Your task to perform on an android device: toggle location history Image 0: 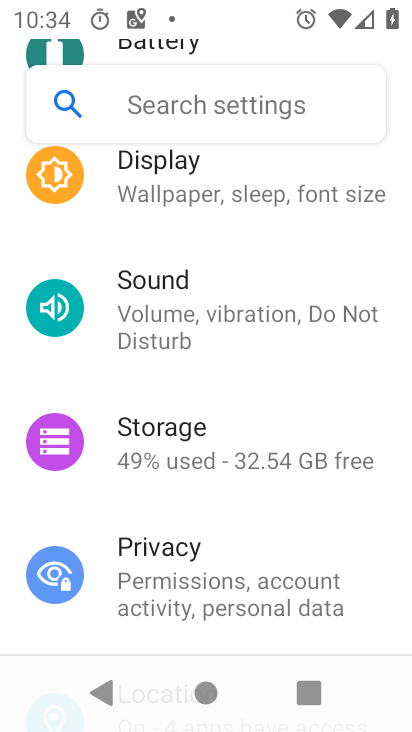
Step 0: press home button
Your task to perform on an android device: toggle location history Image 1: 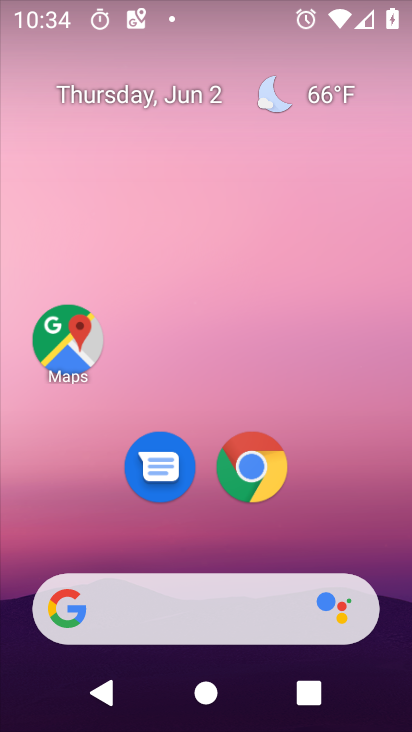
Step 1: drag from (27, 621) to (281, 136)
Your task to perform on an android device: toggle location history Image 2: 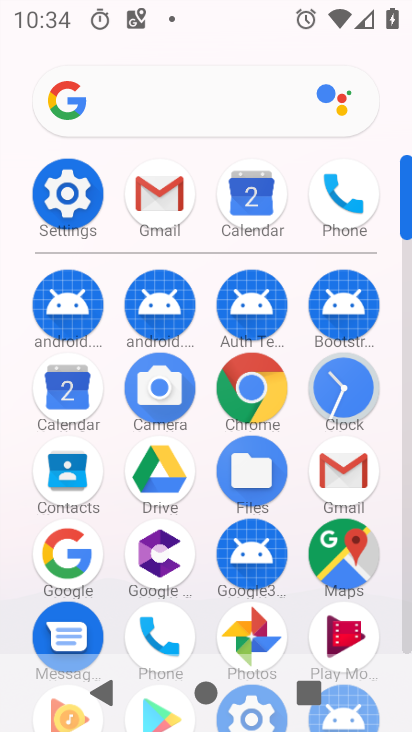
Step 2: click (53, 199)
Your task to perform on an android device: toggle location history Image 3: 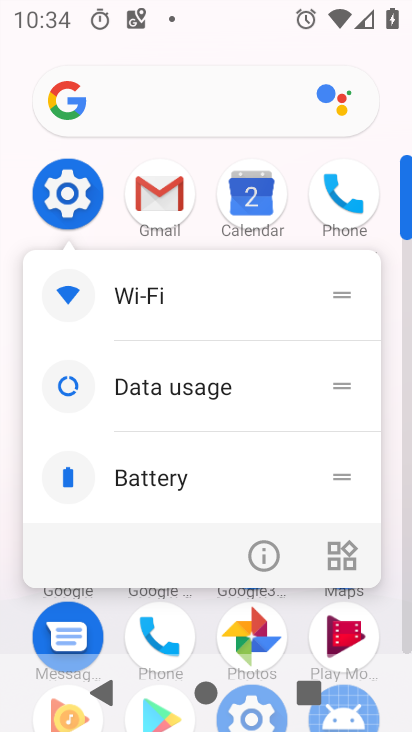
Step 3: click (53, 199)
Your task to perform on an android device: toggle location history Image 4: 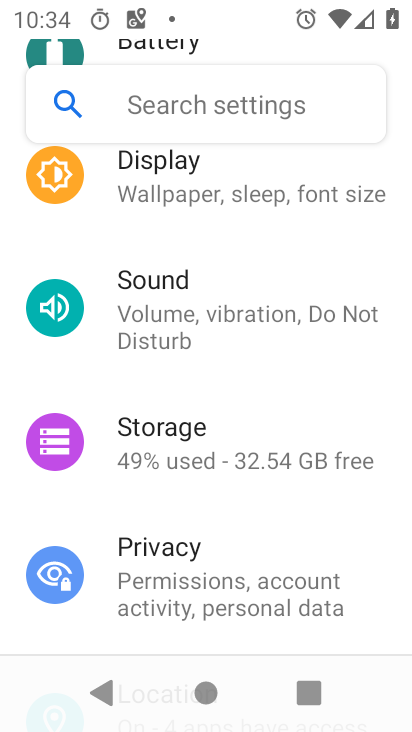
Step 4: drag from (27, 422) to (228, 136)
Your task to perform on an android device: toggle location history Image 5: 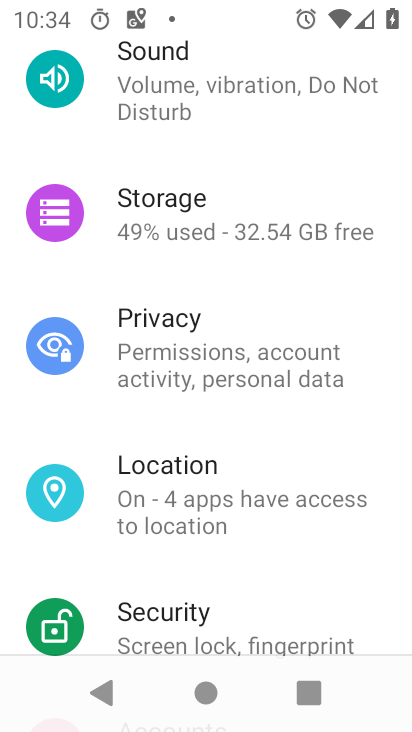
Step 5: drag from (33, 370) to (181, 231)
Your task to perform on an android device: toggle location history Image 6: 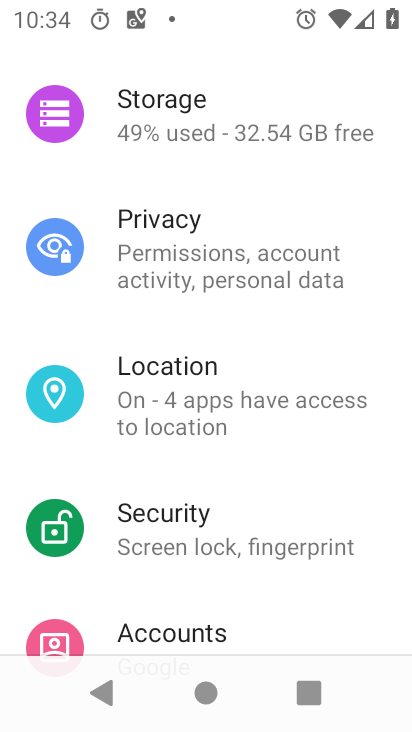
Step 6: drag from (308, 303) to (265, 617)
Your task to perform on an android device: toggle location history Image 7: 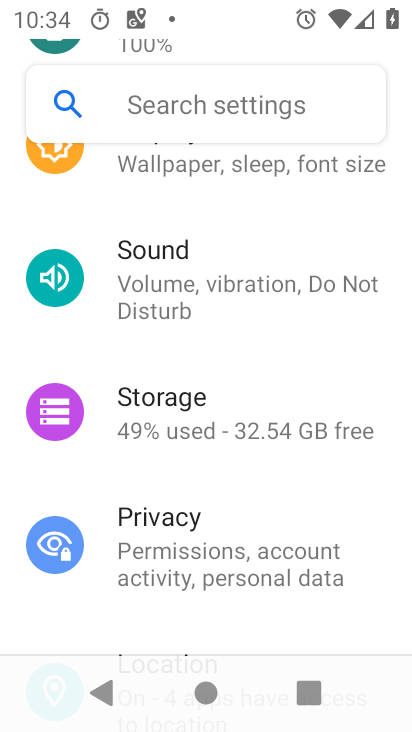
Step 7: drag from (278, 220) to (228, 550)
Your task to perform on an android device: toggle location history Image 8: 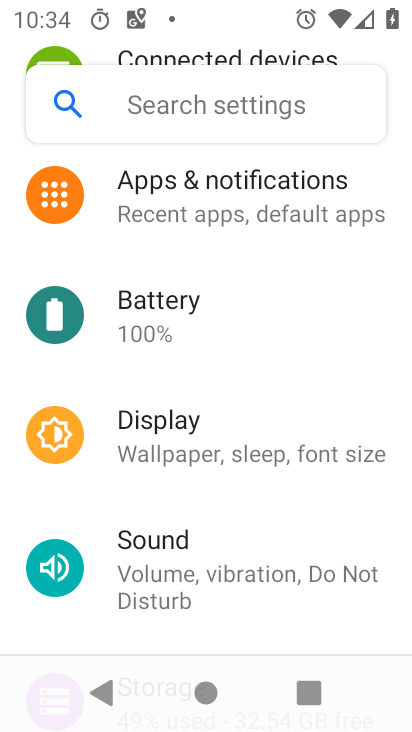
Step 8: drag from (264, 228) to (199, 591)
Your task to perform on an android device: toggle location history Image 9: 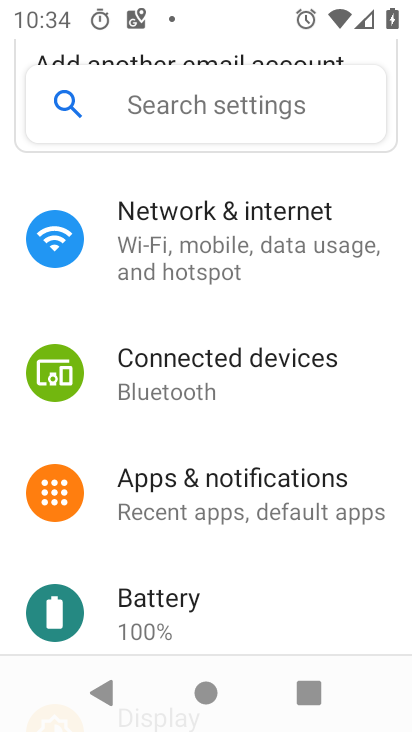
Step 9: drag from (58, 560) to (338, 53)
Your task to perform on an android device: toggle location history Image 10: 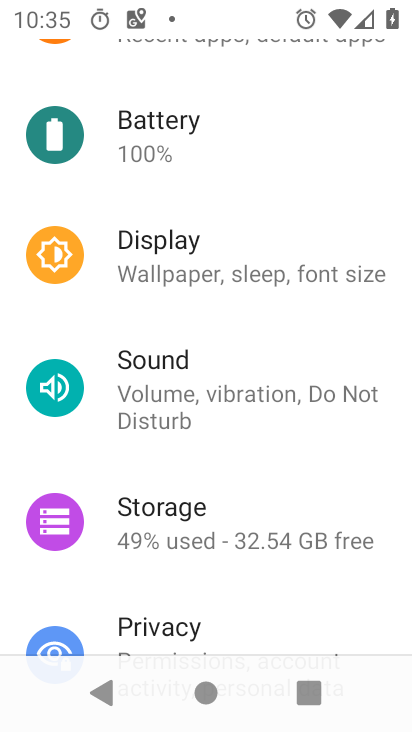
Step 10: drag from (16, 546) to (315, 112)
Your task to perform on an android device: toggle location history Image 11: 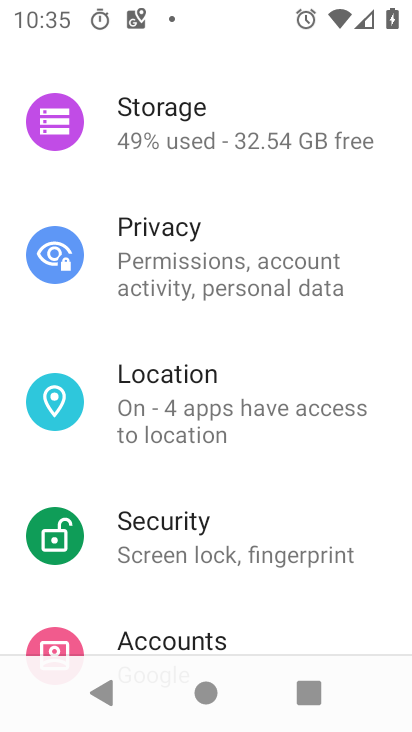
Step 11: click (160, 402)
Your task to perform on an android device: toggle location history Image 12: 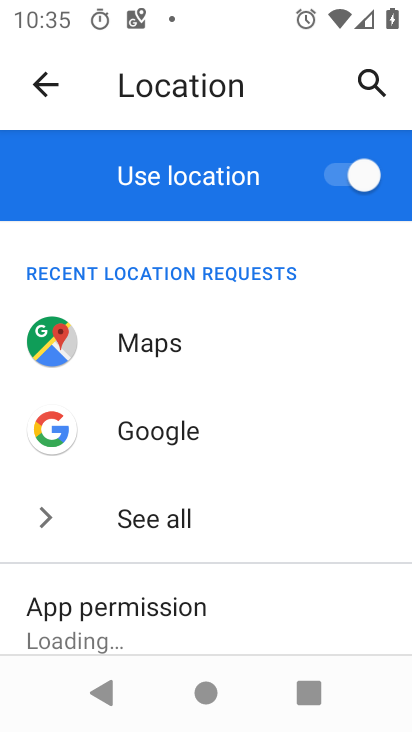
Step 12: drag from (18, 480) to (241, 115)
Your task to perform on an android device: toggle location history Image 13: 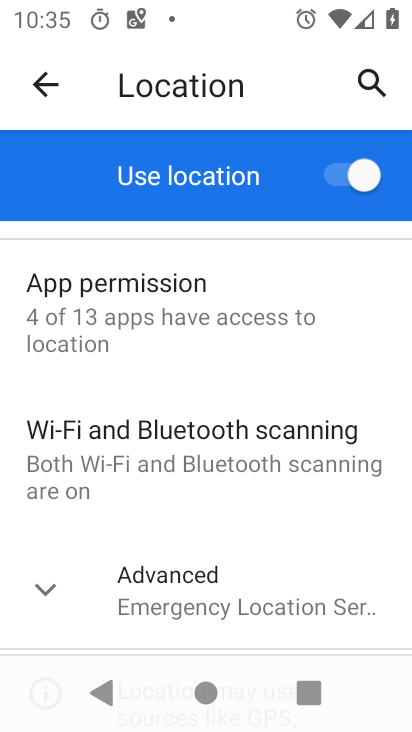
Step 13: click (124, 584)
Your task to perform on an android device: toggle location history Image 14: 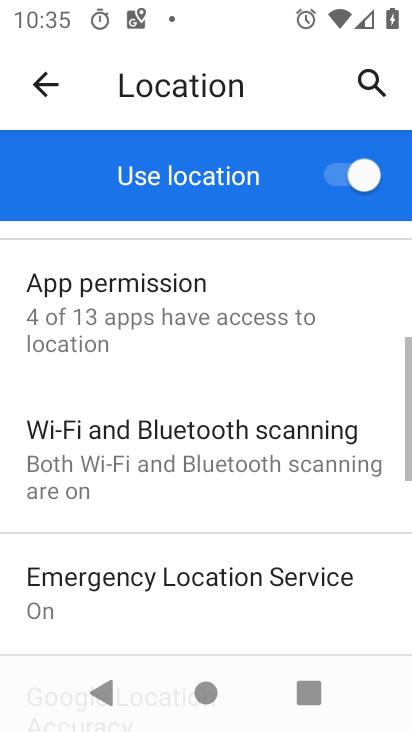
Step 14: drag from (50, 552) to (277, 301)
Your task to perform on an android device: toggle location history Image 15: 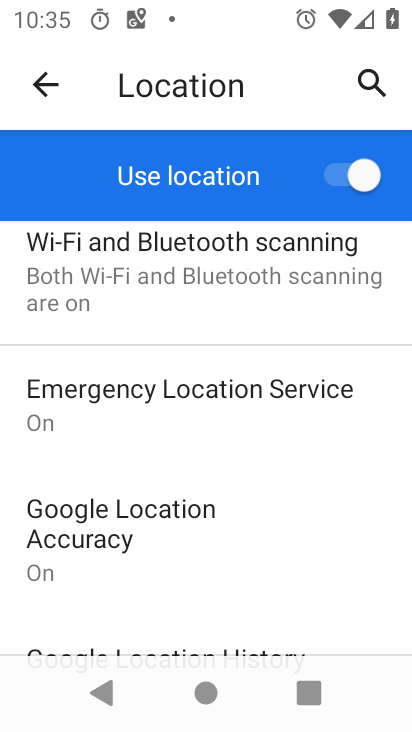
Step 15: drag from (24, 526) to (191, 275)
Your task to perform on an android device: toggle location history Image 16: 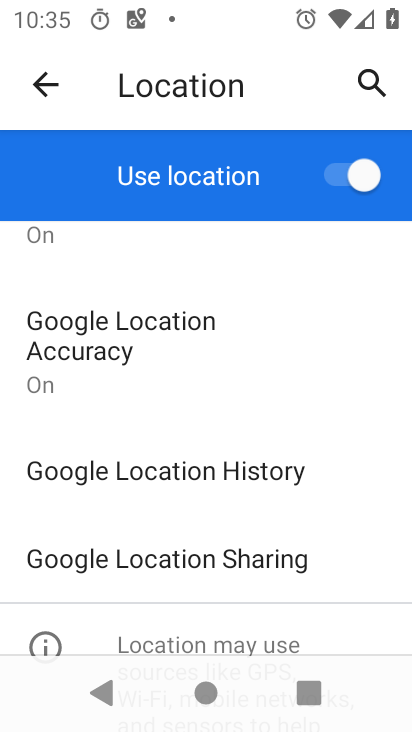
Step 16: click (214, 471)
Your task to perform on an android device: toggle location history Image 17: 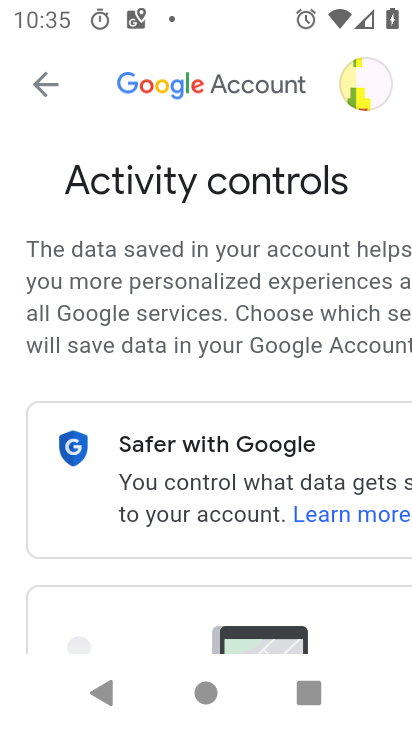
Step 17: drag from (21, 549) to (360, 173)
Your task to perform on an android device: toggle location history Image 18: 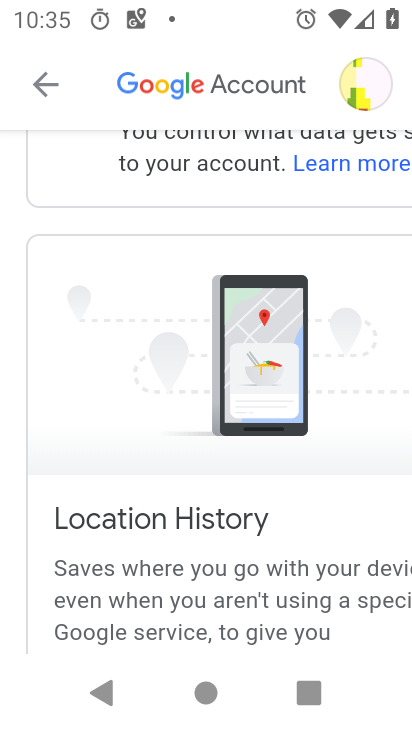
Step 18: drag from (10, 553) to (297, 61)
Your task to perform on an android device: toggle location history Image 19: 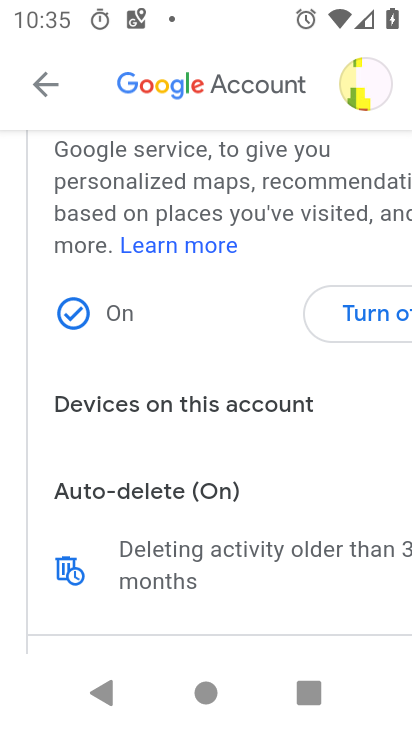
Step 19: click (357, 315)
Your task to perform on an android device: toggle location history Image 20: 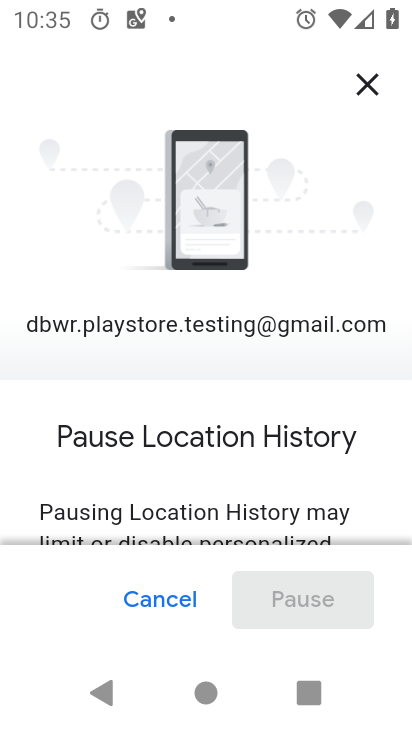
Step 20: task complete